Your task to perform on an android device: Open maps Image 0: 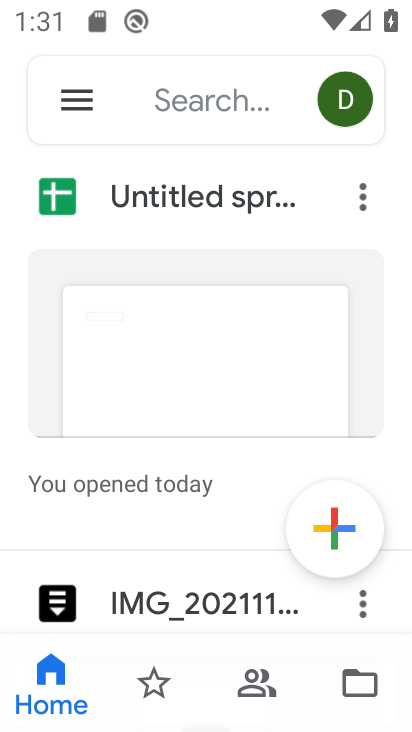
Step 0: press home button
Your task to perform on an android device: Open maps Image 1: 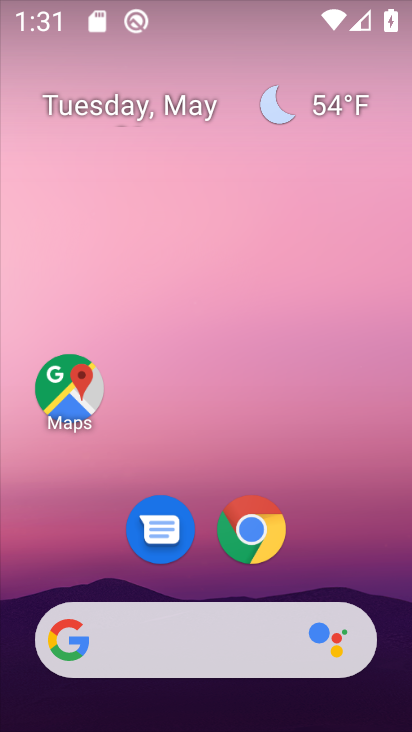
Step 1: click (65, 388)
Your task to perform on an android device: Open maps Image 2: 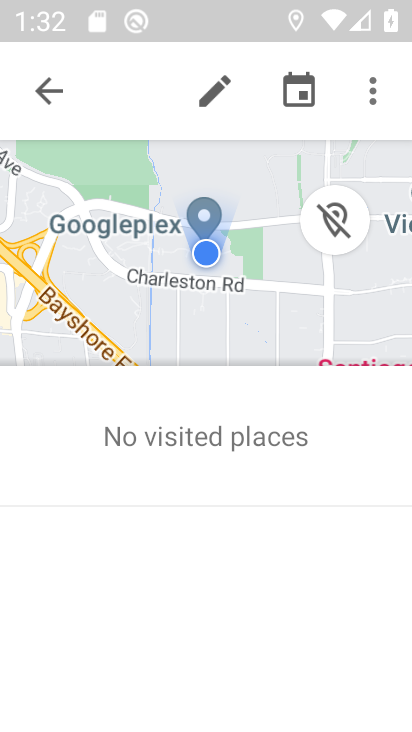
Step 2: task complete